Your task to perform on an android device: set default search engine in the chrome app Image 0: 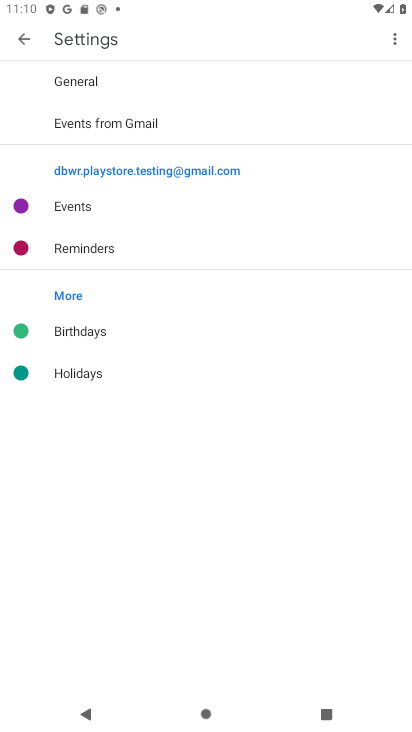
Step 0: press home button
Your task to perform on an android device: set default search engine in the chrome app Image 1: 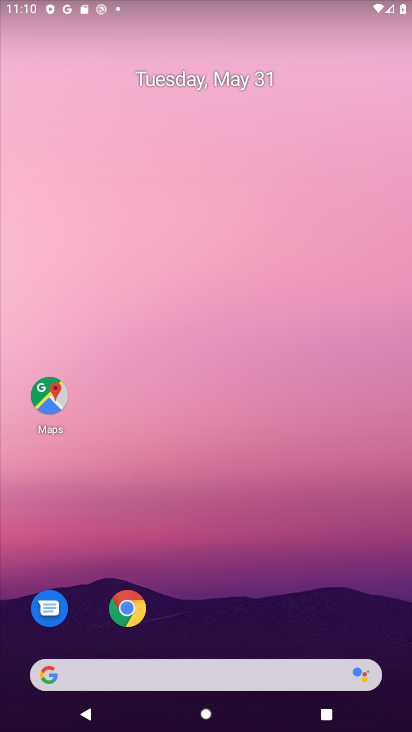
Step 1: click (115, 606)
Your task to perform on an android device: set default search engine in the chrome app Image 2: 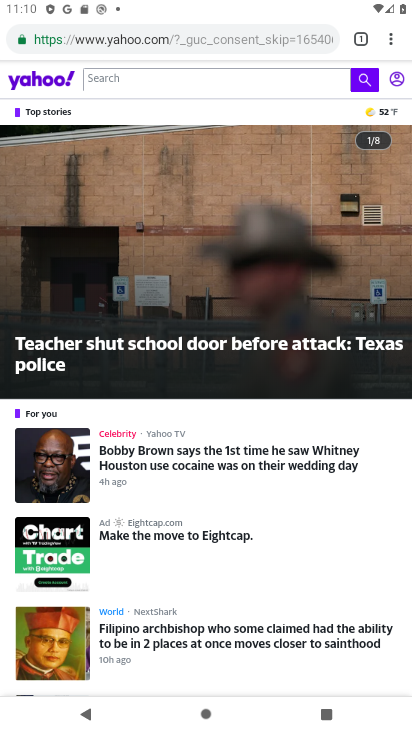
Step 2: drag from (380, 37) to (262, 475)
Your task to perform on an android device: set default search engine in the chrome app Image 3: 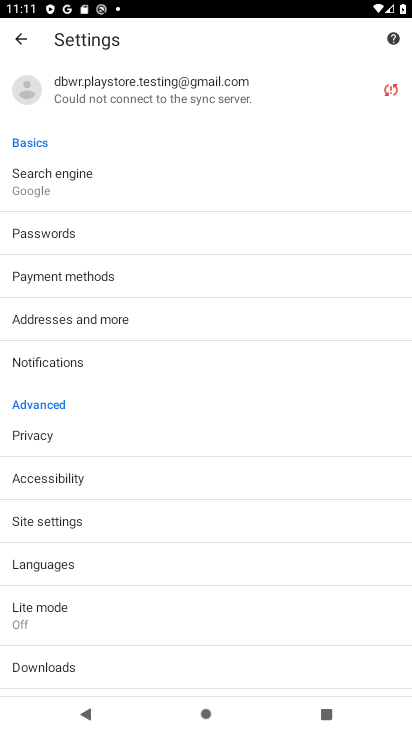
Step 3: click (76, 200)
Your task to perform on an android device: set default search engine in the chrome app Image 4: 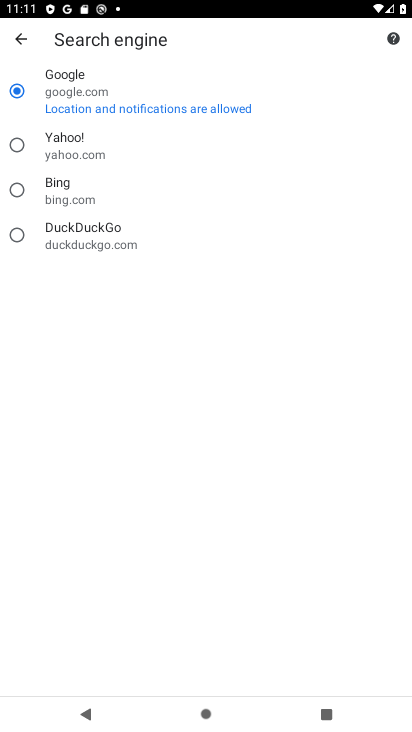
Step 4: click (72, 72)
Your task to perform on an android device: set default search engine in the chrome app Image 5: 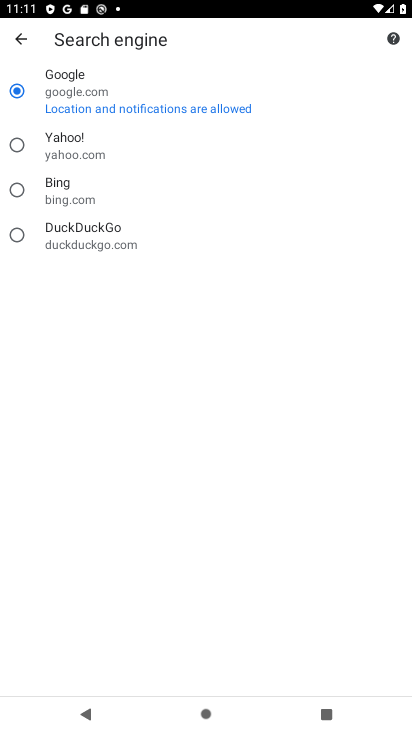
Step 5: task complete